Your task to perform on an android device: empty trash in the gmail app Image 0: 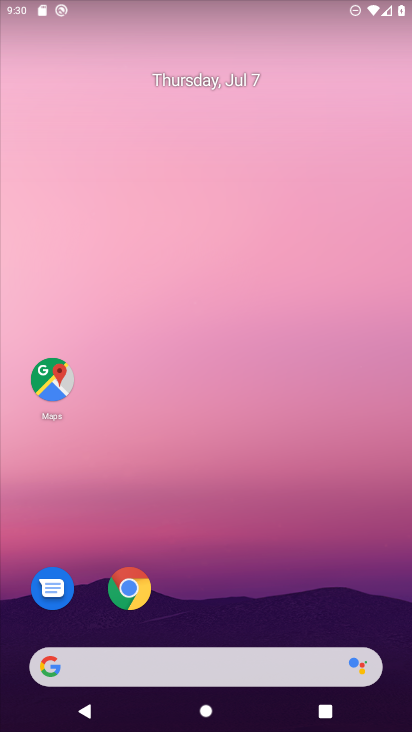
Step 0: drag from (222, 602) to (248, 159)
Your task to perform on an android device: empty trash in the gmail app Image 1: 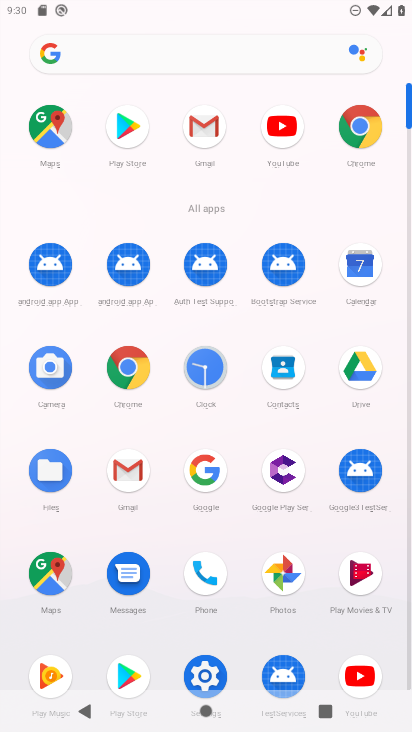
Step 1: click (198, 134)
Your task to perform on an android device: empty trash in the gmail app Image 2: 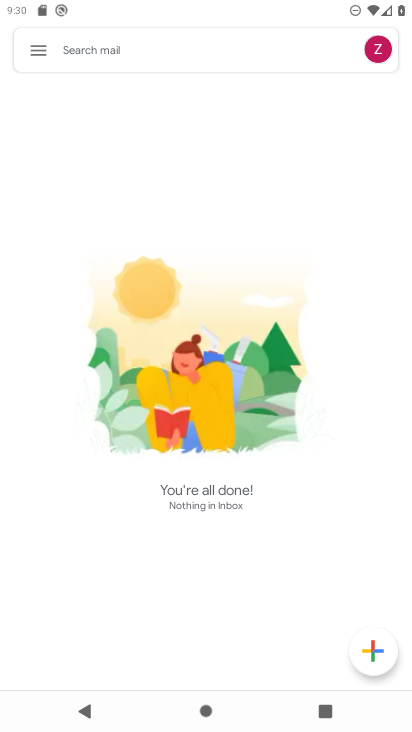
Step 2: click (53, 53)
Your task to perform on an android device: empty trash in the gmail app Image 3: 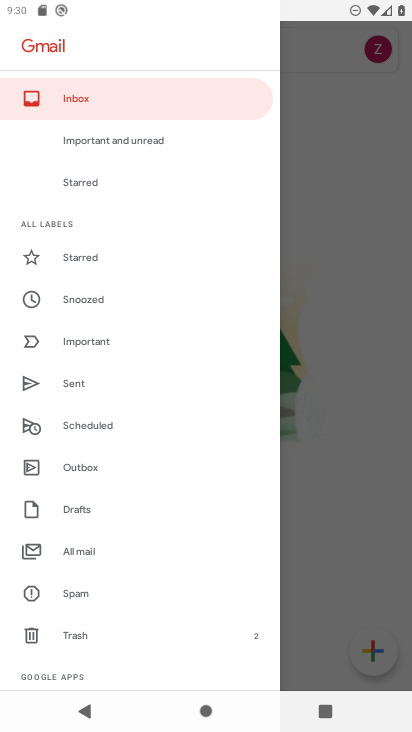
Step 3: click (79, 647)
Your task to perform on an android device: empty trash in the gmail app Image 4: 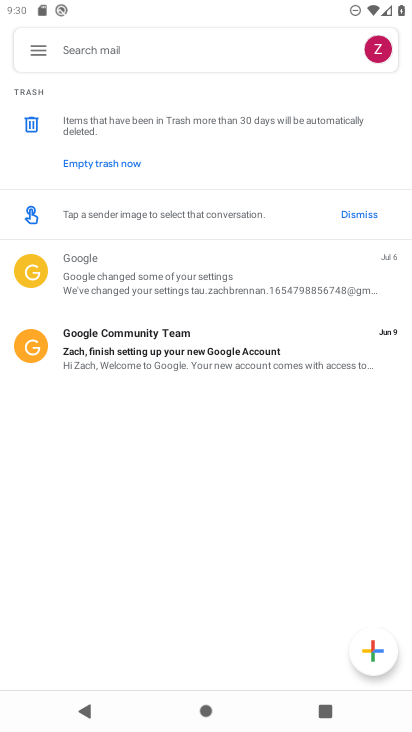
Step 4: click (87, 159)
Your task to perform on an android device: empty trash in the gmail app Image 5: 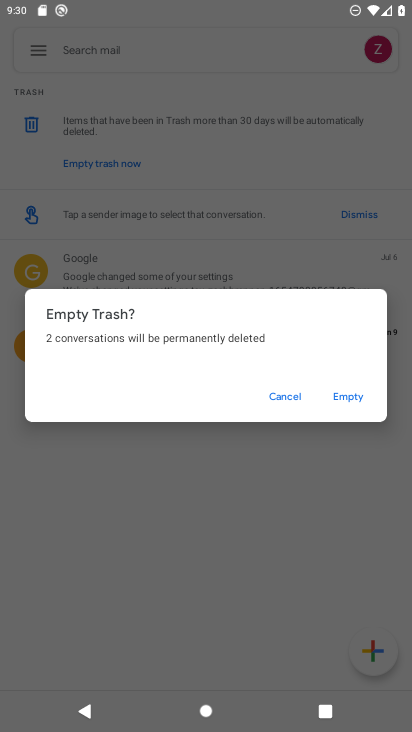
Step 5: click (357, 407)
Your task to perform on an android device: empty trash in the gmail app Image 6: 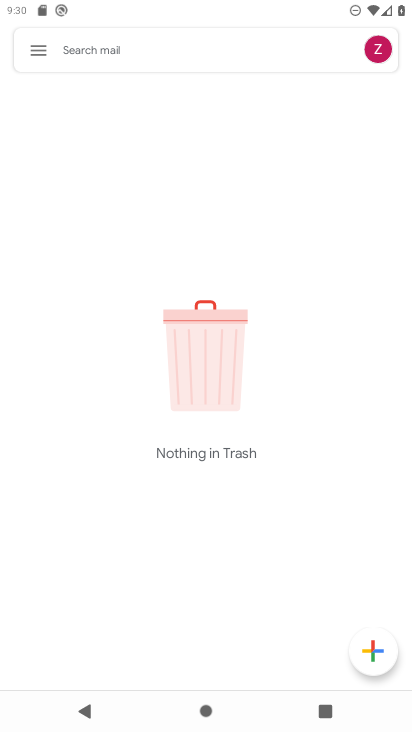
Step 6: task complete